Your task to perform on an android device: turn notification dots on Image 0: 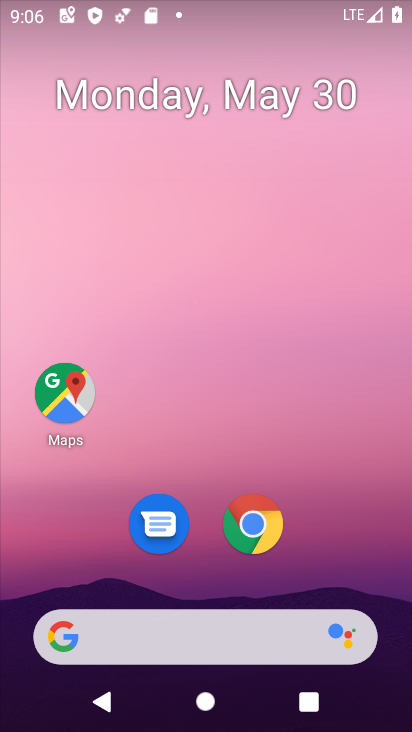
Step 0: drag from (316, 539) to (278, 84)
Your task to perform on an android device: turn notification dots on Image 1: 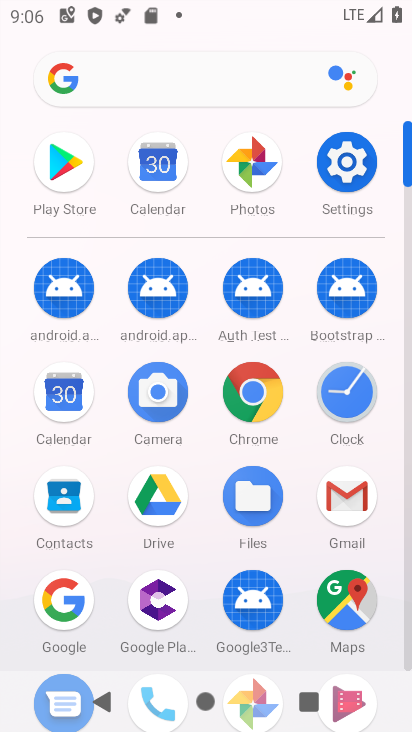
Step 1: click (349, 159)
Your task to perform on an android device: turn notification dots on Image 2: 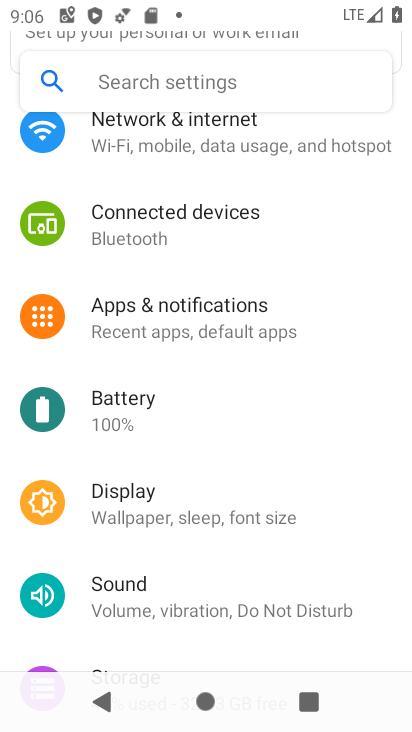
Step 2: click (264, 328)
Your task to perform on an android device: turn notification dots on Image 3: 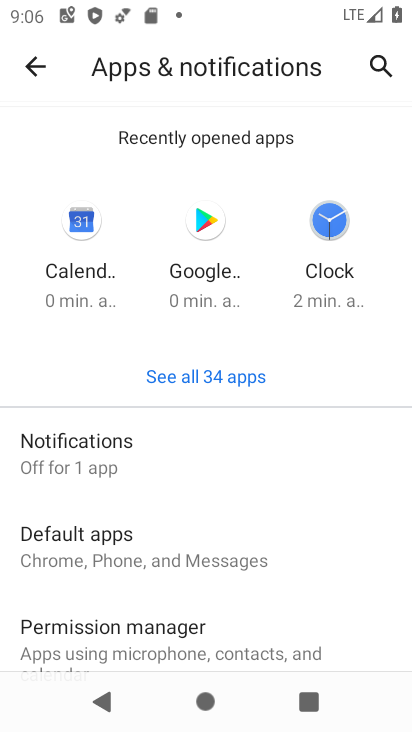
Step 3: click (230, 450)
Your task to perform on an android device: turn notification dots on Image 4: 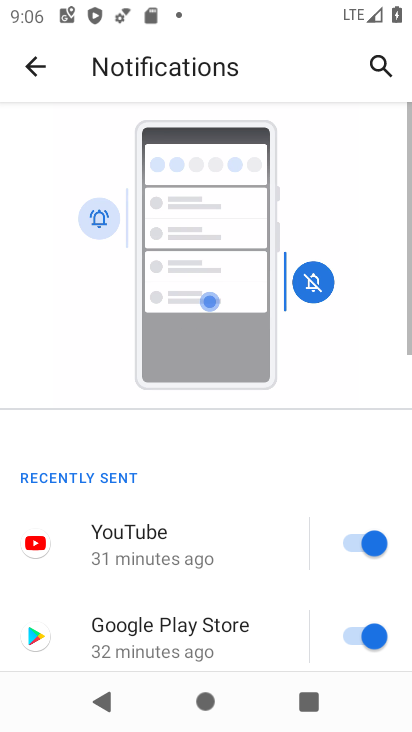
Step 4: drag from (265, 573) to (271, 214)
Your task to perform on an android device: turn notification dots on Image 5: 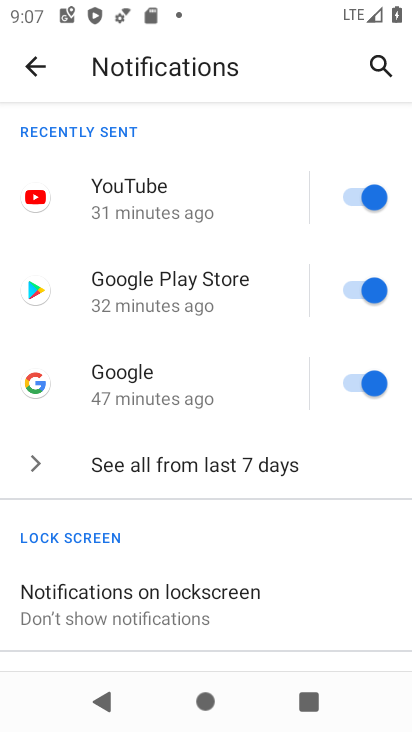
Step 5: drag from (116, 519) to (149, 294)
Your task to perform on an android device: turn notification dots on Image 6: 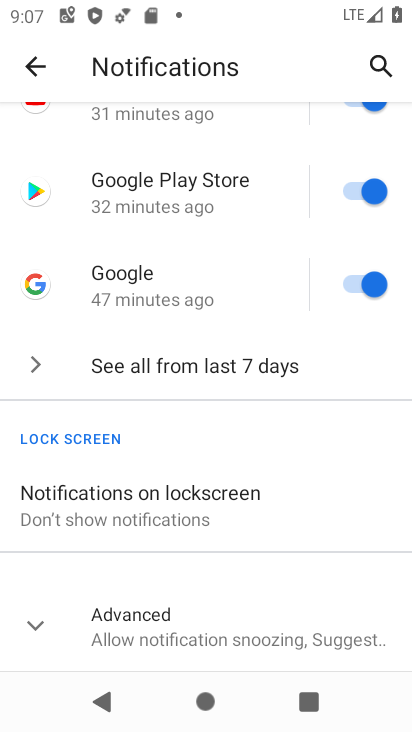
Step 6: click (31, 620)
Your task to perform on an android device: turn notification dots on Image 7: 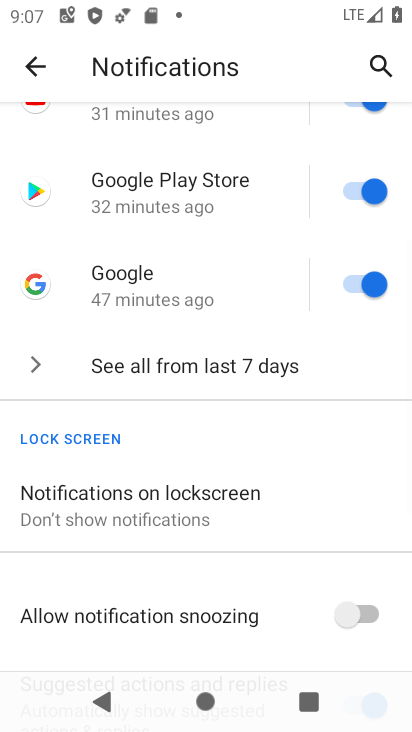
Step 7: drag from (185, 539) to (207, 273)
Your task to perform on an android device: turn notification dots on Image 8: 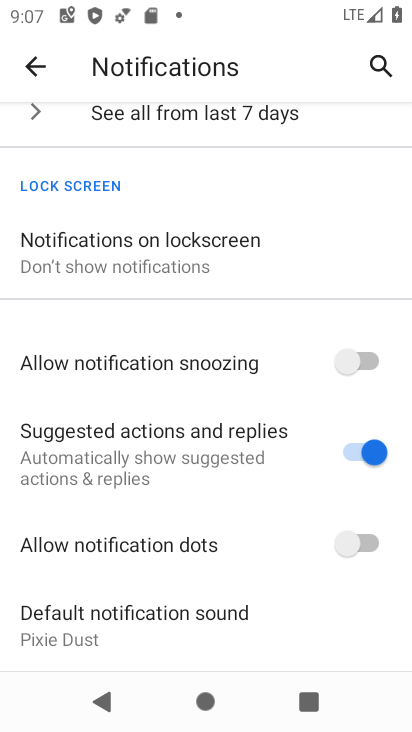
Step 8: click (361, 541)
Your task to perform on an android device: turn notification dots on Image 9: 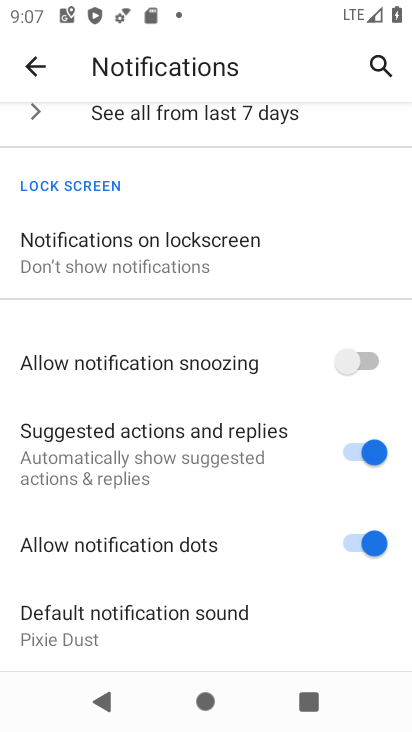
Step 9: task complete